Your task to perform on an android device: Find coffee shops on Maps Image 0: 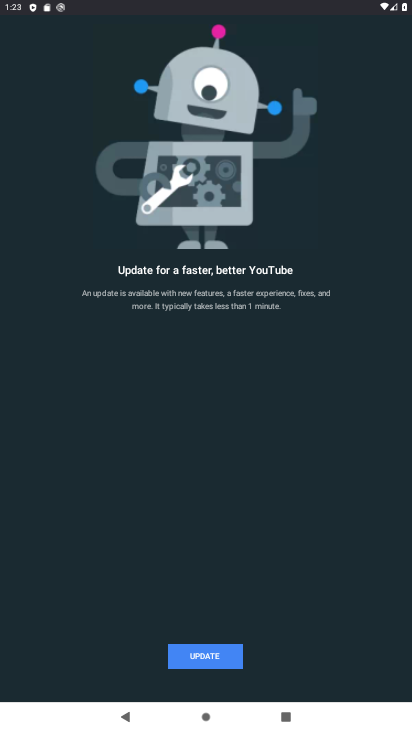
Step 0: press home button
Your task to perform on an android device: Find coffee shops on Maps Image 1: 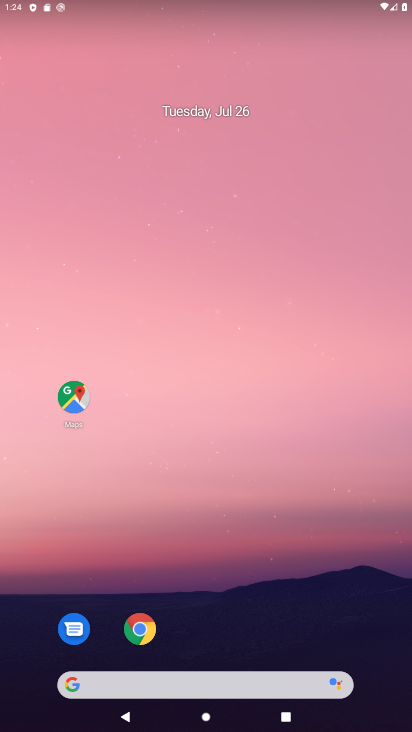
Step 1: click (68, 397)
Your task to perform on an android device: Find coffee shops on Maps Image 2: 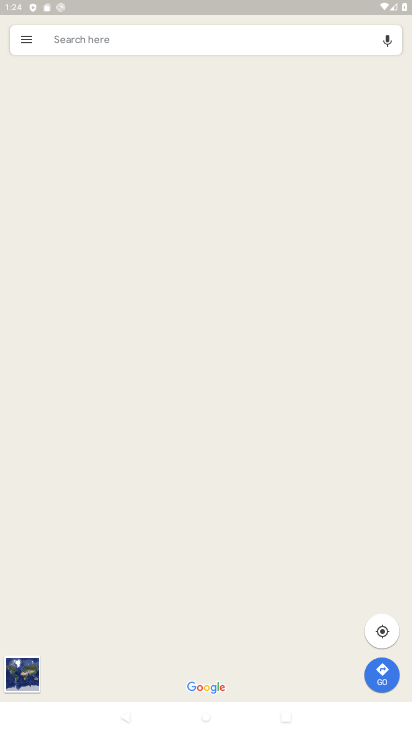
Step 2: click (187, 47)
Your task to perform on an android device: Find coffee shops on Maps Image 3: 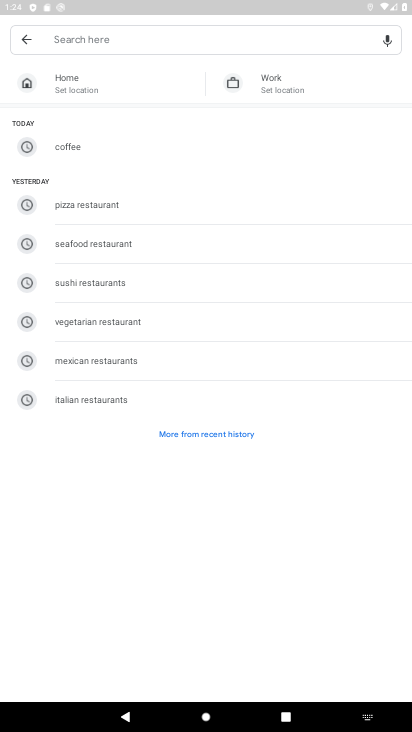
Step 3: type "coffee shops "
Your task to perform on an android device: Find coffee shops on Maps Image 4: 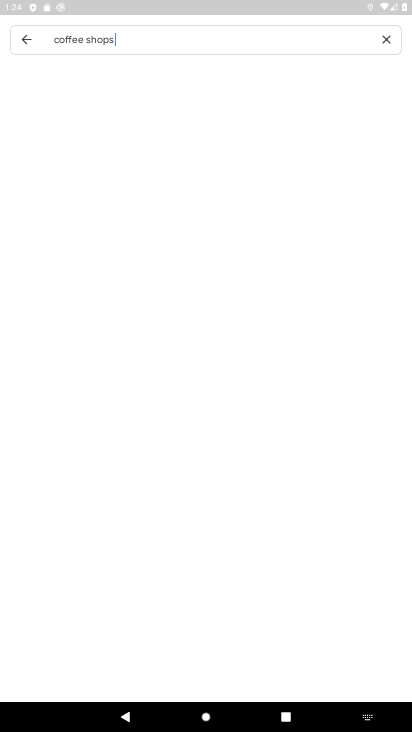
Step 4: press enter
Your task to perform on an android device: Find coffee shops on Maps Image 5: 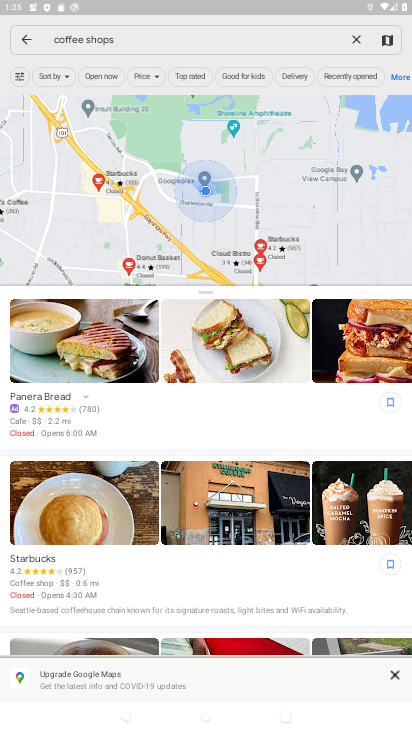
Step 5: task complete